Your task to perform on an android device: What's the weather going to be this weekend? Image 0: 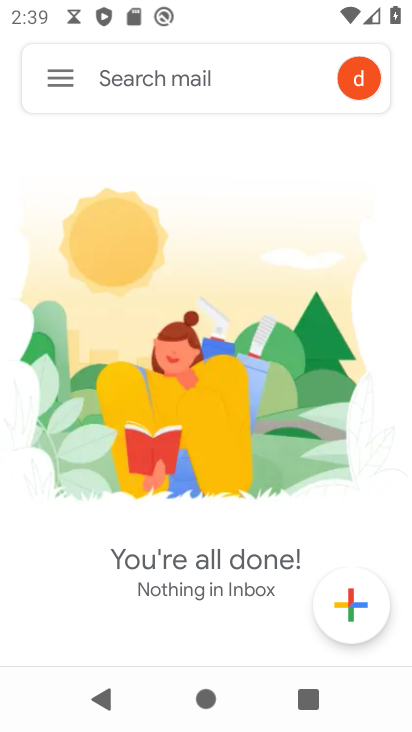
Step 0: press home button
Your task to perform on an android device: What's the weather going to be this weekend? Image 1: 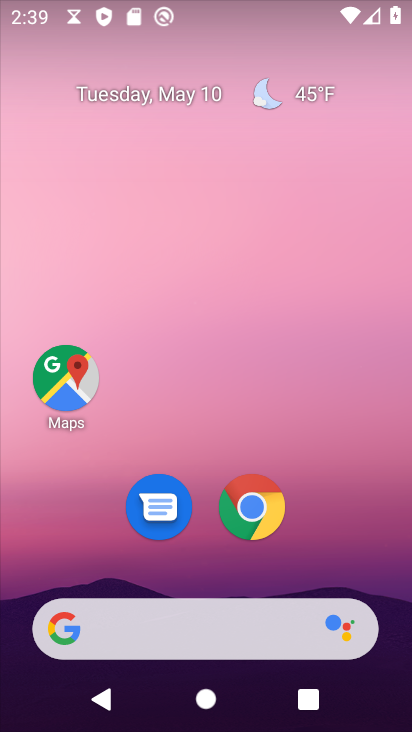
Step 1: click (251, 506)
Your task to perform on an android device: What's the weather going to be this weekend? Image 2: 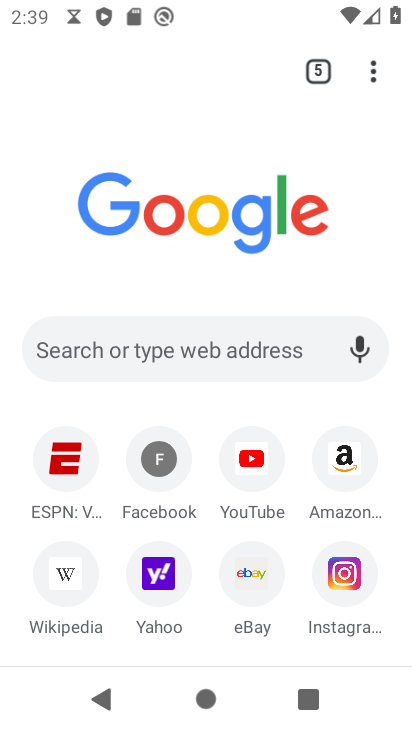
Step 2: click (319, 57)
Your task to perform on an android device: What's the weather going to be this weekend? Image 3: 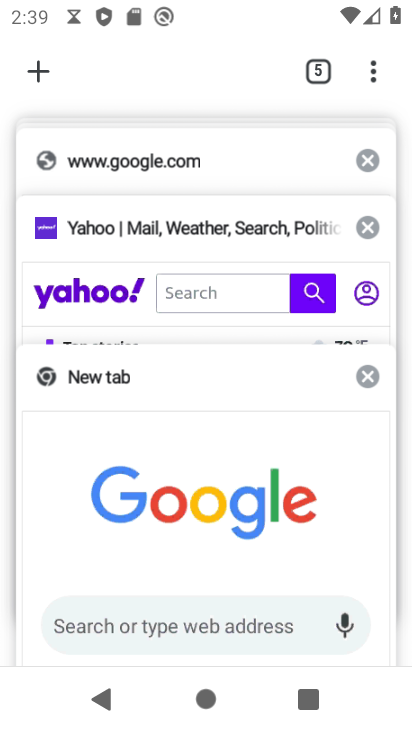
Step 3: drag from (172, 203) to (167, 552)
Your task to perform on an android device: What's the weather going to be this weekend? Image 4: 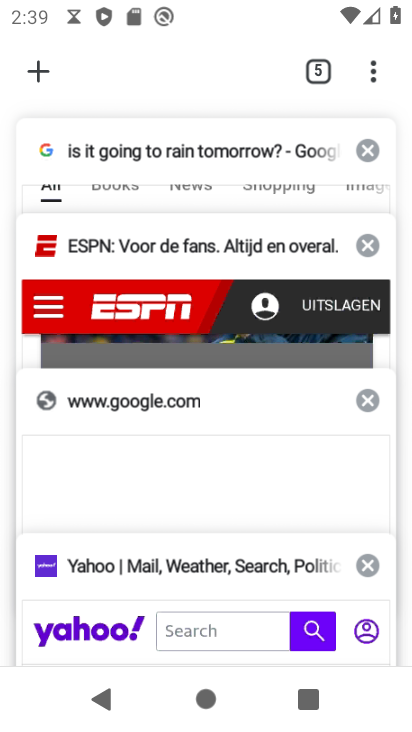
Step 4: drag from (181, 264) to (170, 85)
Your task to perform on an android device: What's the weather going to be this weekend? Image 5: 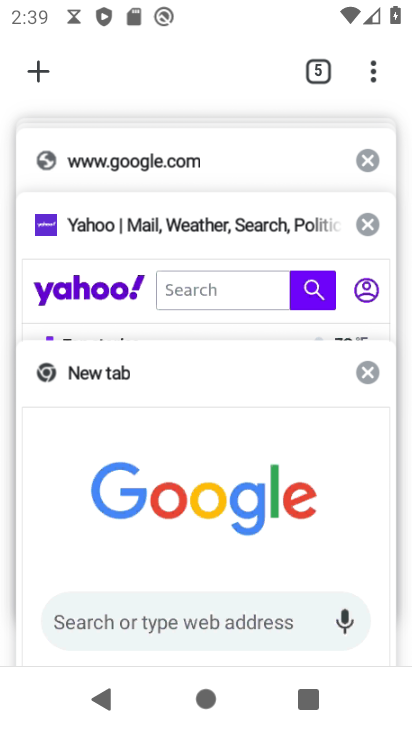
Step 5: drag from (135, 483) to (138, 251)
Your task to perform on an android device: What's the weather going to be this weekend? Image 6: 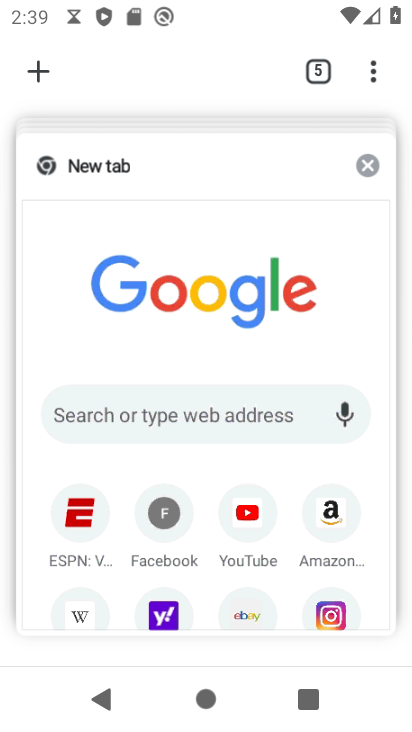
Step 6: click (129, 409)
Your task to perform on an android device: What's the weather going to be this weekend? Image 7: 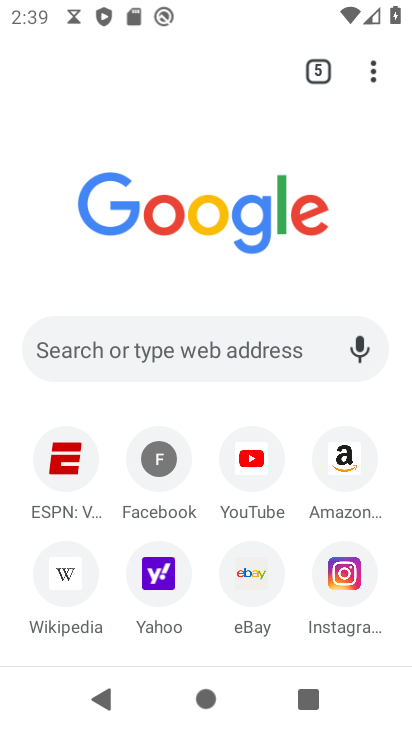
Step 7: click (131, 345)
Your task to perform on an android device: What's the weather going to be this weekend? Image 8: 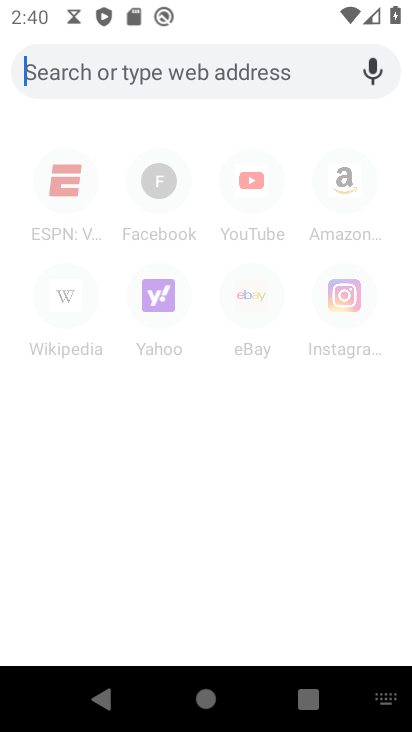
Step 8: type "what's the weather going to be in this weekend?"
Your task to perform on an android device: What's the weather going to be this weekend? Image 9: 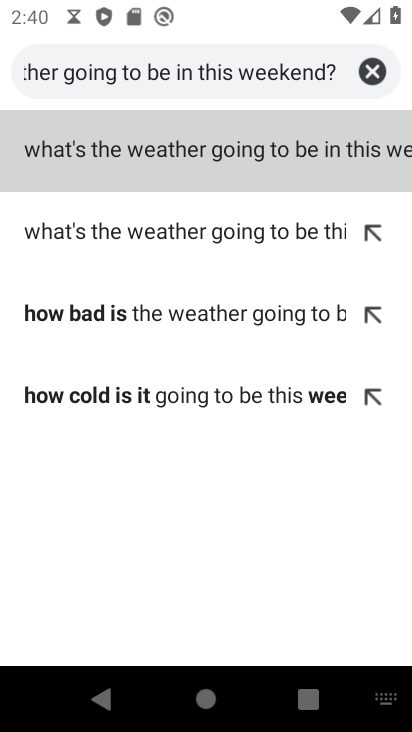
Step 9: click (123, 163)
Your task to perform on an android device: What's the weather going to be this weekend? Image 10: 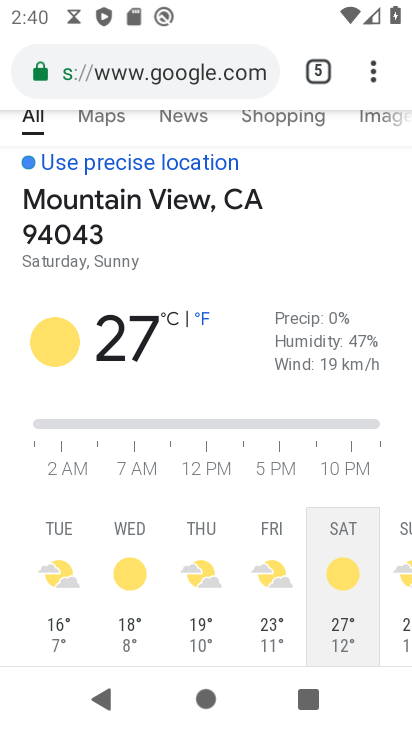
Step 10: task complete